Your task to perform on an android device: turn on javascript in the chrome app Image 0: 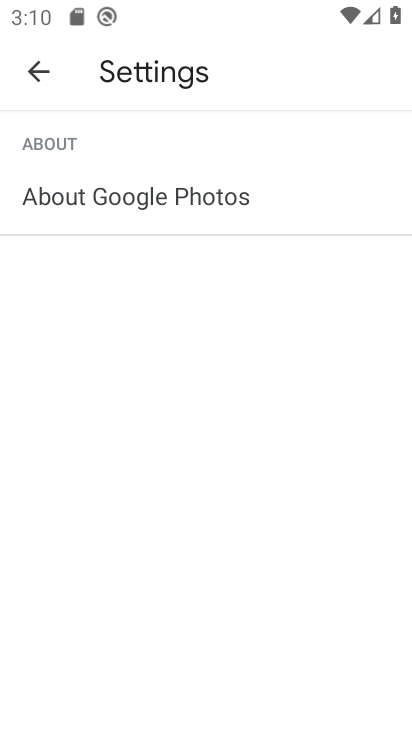
Step 0: press home button
Your task to perform on an android device: turn on javascript in the chrome app Image 1: 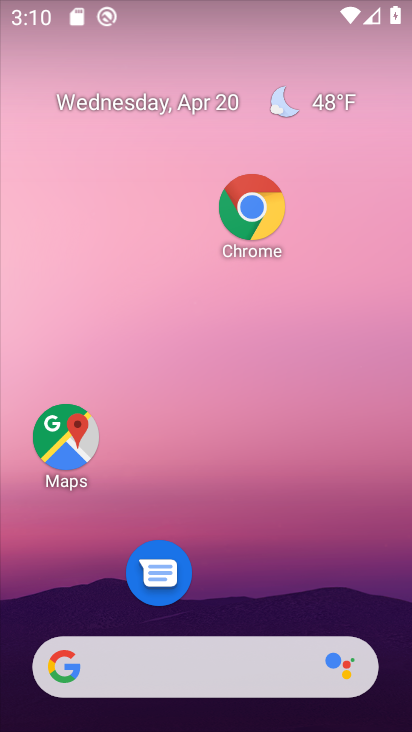
Step 1: click (265, 228)
Your task to perform on an android device: turn on javascript in the chrome app Image 2: 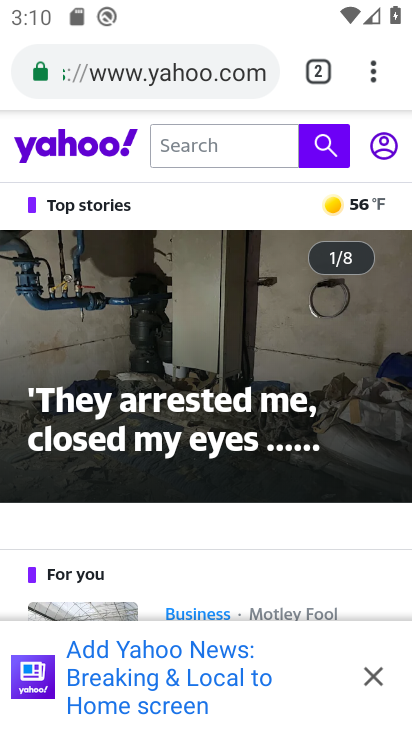
Step 2: click (375, 76)
Your task to perform on an android device: turn on javascript in the chrome app Image 3: 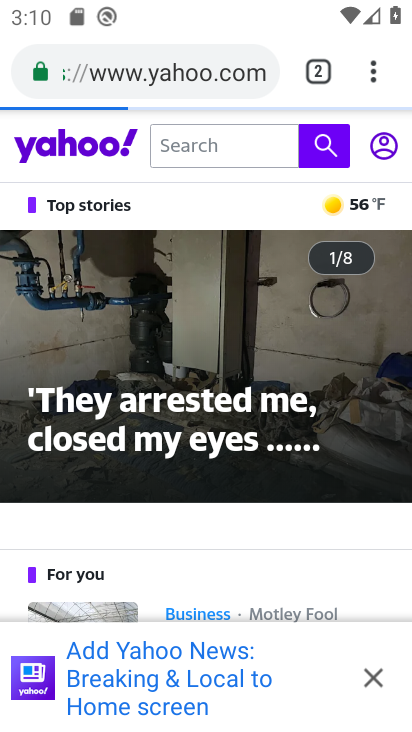
Step 3: click (375, 76)
Your task to perform on an android device: turn on javascript in the chrome app Image 4: 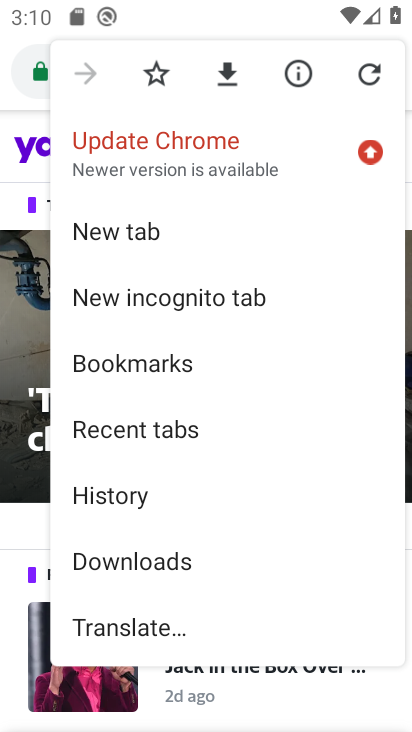
Step 4: drag from (206, 406) to (210, 297)
Your task to perform on an android device: turn on javascript in the chrome app Image 5: 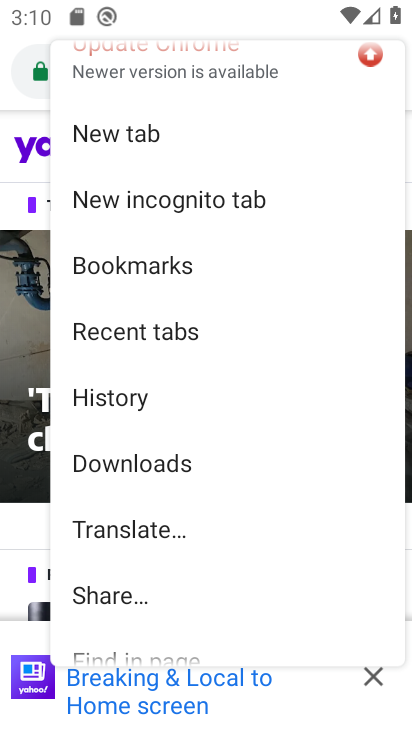
Step 5: drag from (198, 555) to (281, 152)
Your task to perform on an android device: turn on javascript in the chrome app Image 6: 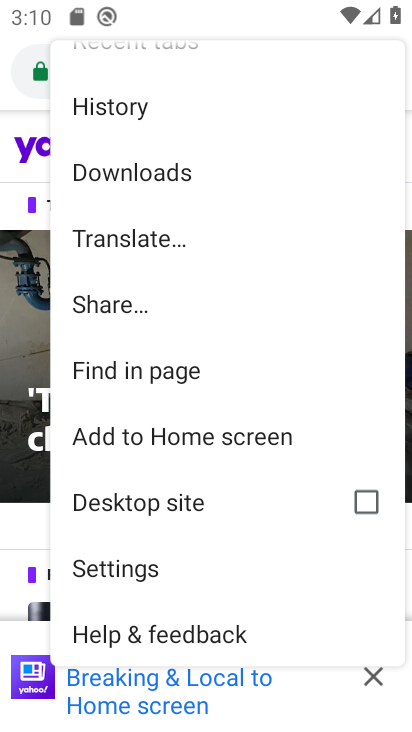
Step 6: click (171, 567)
Your task to perform on an android device: turn on javascript in the chrome app Image 7: 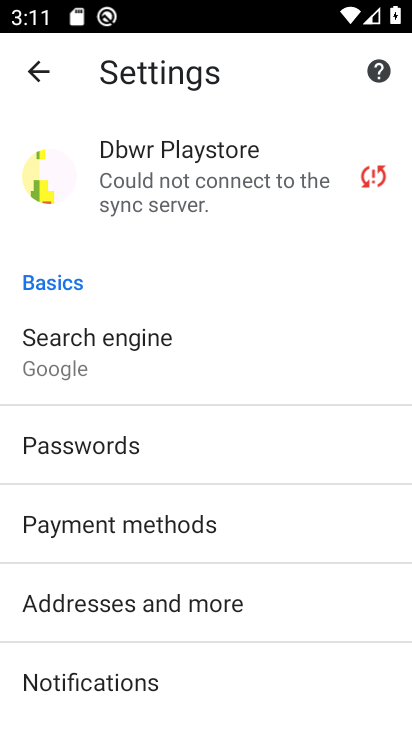
Step 7: drag from (186, 618) to (188, 486)
Your task to perform on an android device: turn on javascript in the chrome app Image 8: 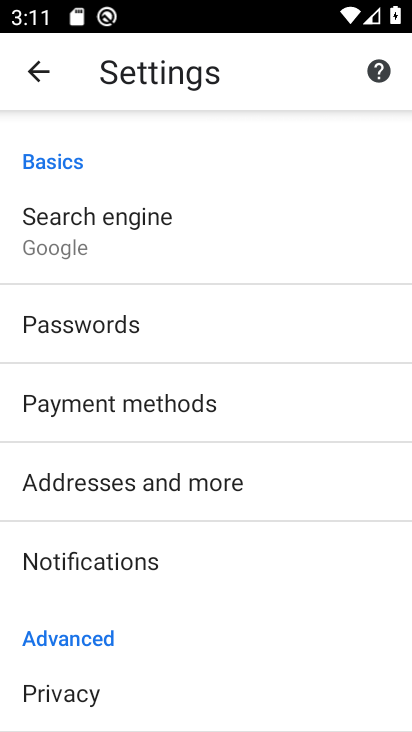
Step 8: drag from (164, 688) to (190, 389)
Your task to perform on an android device: turn on javascript in the chrome app Image 9: 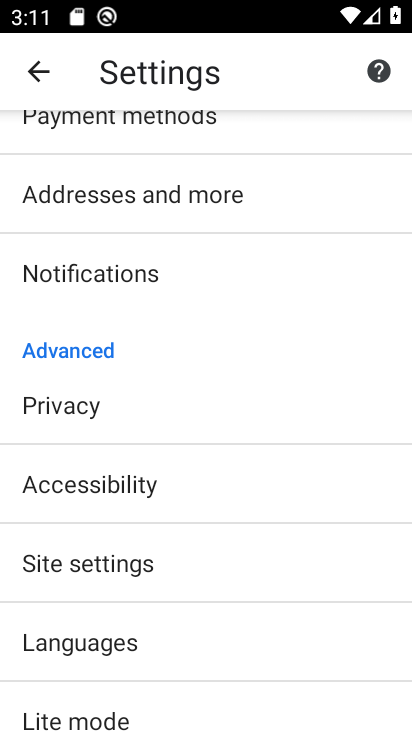
Step 9: click (163, 574)
Your task to perform on an android device: turn on javascript in the chrome app Image 10: 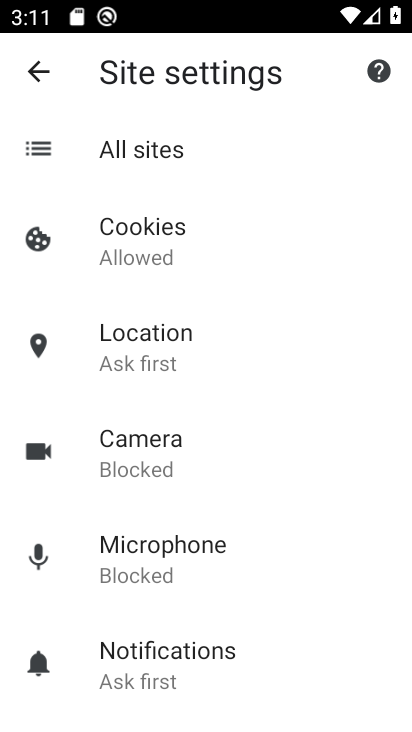
Step 10: drag from (211, 571) to (214, 369)
Your task to perform on an android device: turn on javascript in the chrome app Image 11: 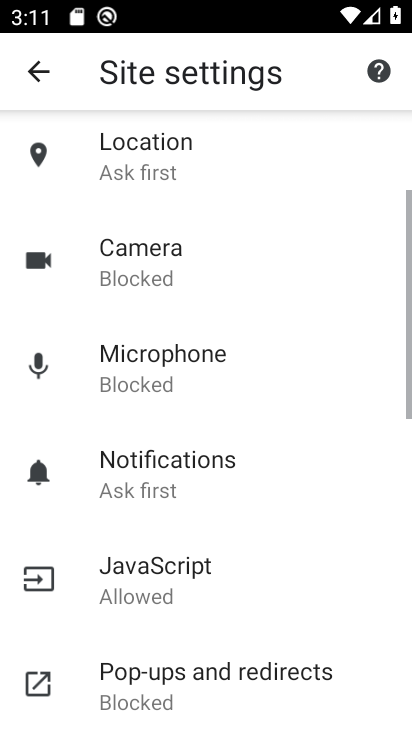
Step 11: drag from (214, 553) to (219, 428)
Your task to perform on an android device: turn on javascript in the chrome app Image 12: 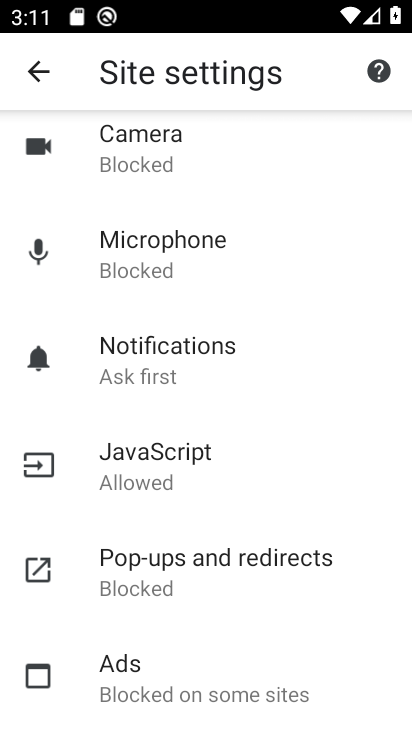
Step 12: click (206, 455)
Your task to perform on an android device: turn on javascript in the chrome app Image 13: 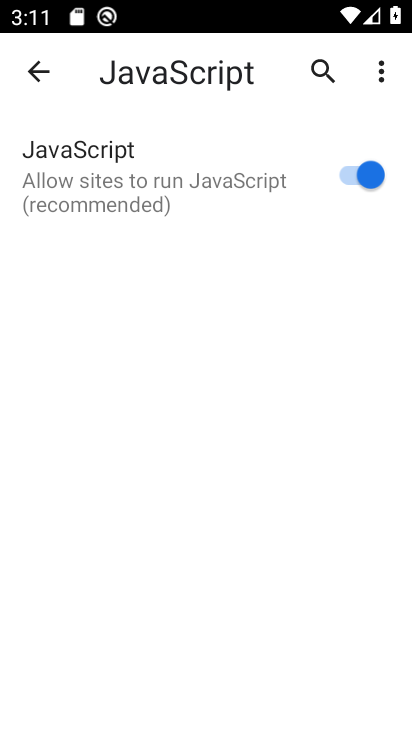
Step 13: task complete